Your task to perform on an android device: Turn on the flashlight Image 0: 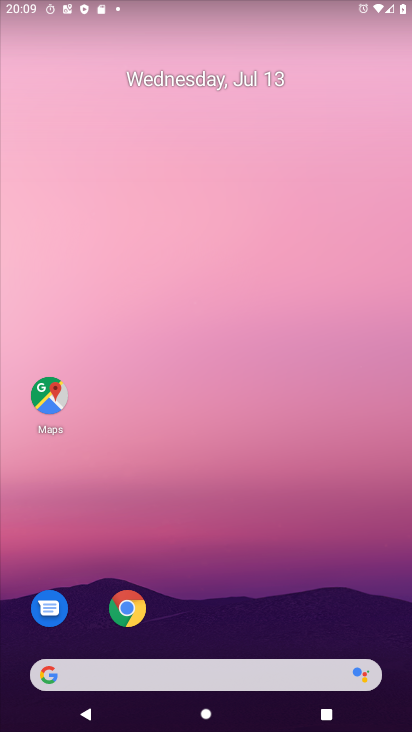
Step 0: drag from (233, 634) to (210, 207)
Your task to perform on an android device: Turn on the flashlight Image 1: 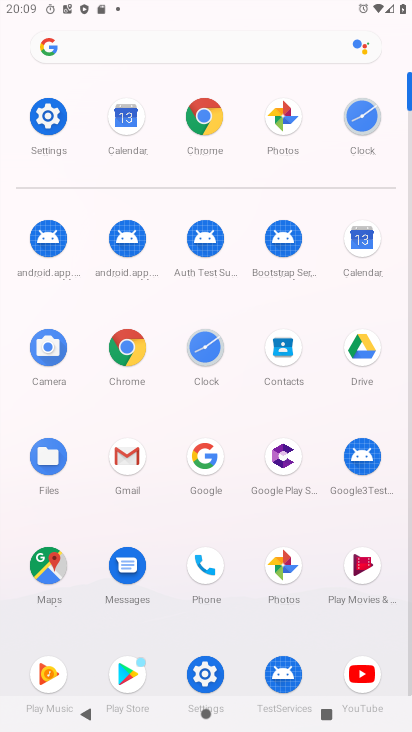
Step 1: click (207, 690)
Your task to perform on an android device: Turn on the flashlight Image 2: 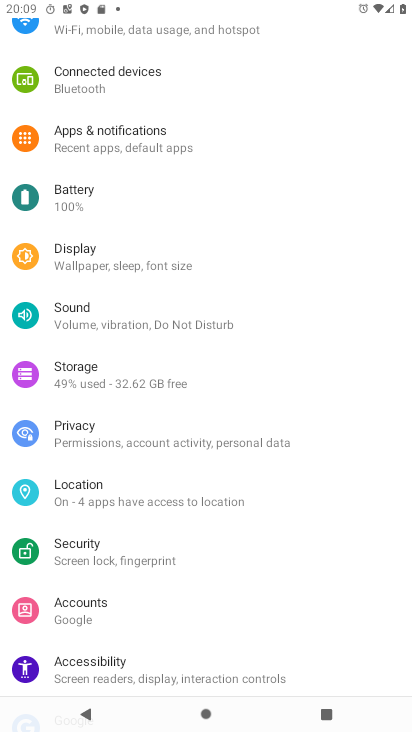
Step 2: task complete